Your task to perform on an android device: Turn off the flashlight Image 0: 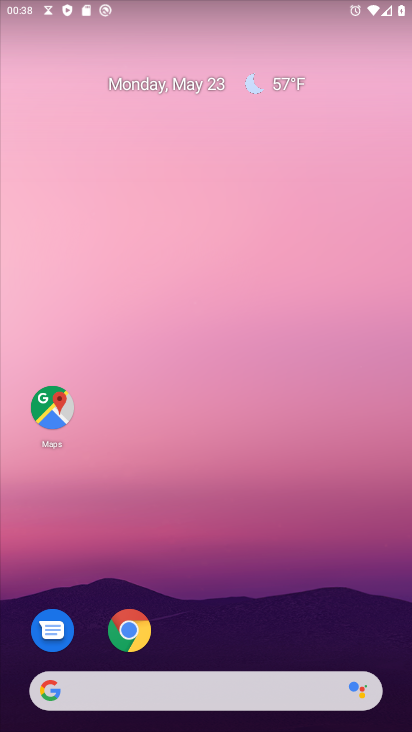
Step 0: drag from (177, 13) to (217, 566)
Your task to perform on an android device: Turn off the flashlight Image 1: 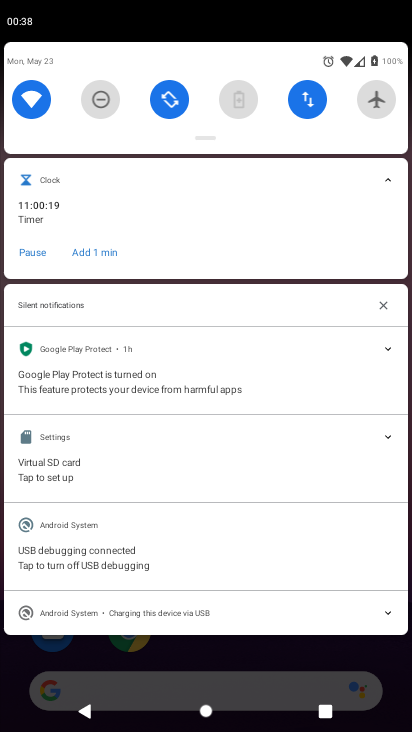
Step 1: task complete